Your task to perform on an android device: Clear the shopping cart on walmart. Search for "bose soundlink" on walmart, select the first entry, and add it to the cart. Image 0: 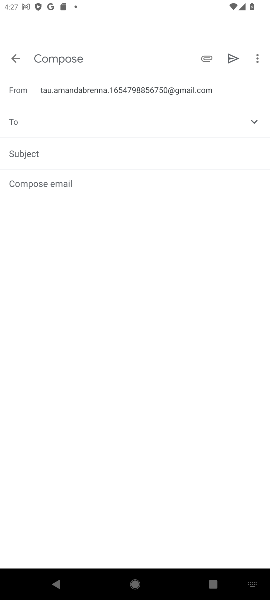
Step 0: press home button
Your task to perform on an android device: Clear the shopping cart on walmart. Search for "bose soundlink" on walmart, select the first entry, and add it to the cart. Image 1: 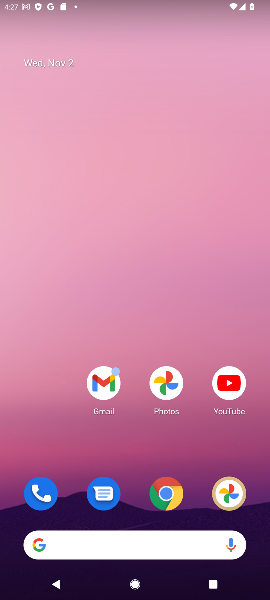
Step 1: drag from (126, 514) to (137, 179)
Your task to perform on an android device: Clear the shopping cart on walmart. Search for "bose soundlink" on walmart, select the first entry, and add it to the cart. Image 2: 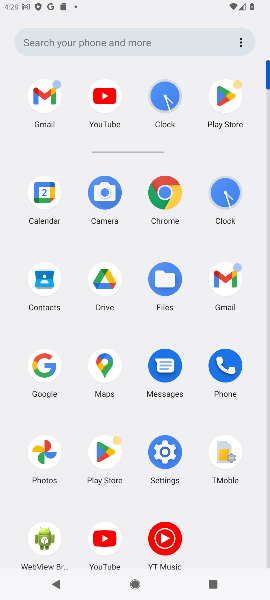
Step 2: click (38, 360)
Your task to perform on an android device: Clear the shopping cart on walmart. Search for "bose soundlink" on walmart, select the first entry, and add it to the cart. Image 3: 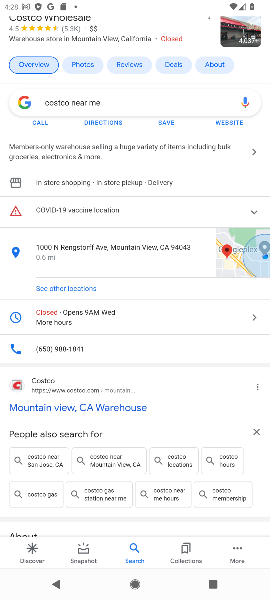
Step 3: click (110, 98)
Your task to perform on an android device: Clear the shopping cart on walmart. Search for "bose soundlink" on walmart, select the first entry, and add it to the cart. Image 4: 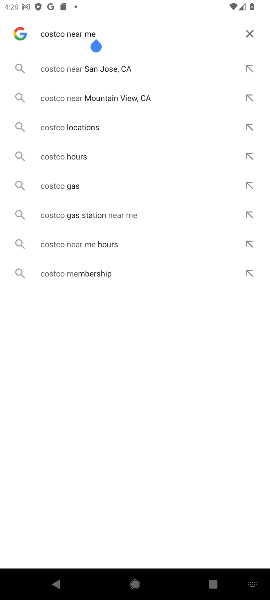
Step 4: click (247, 33)
Your task to perform on an android device: Clear the shopping cart on walmart. Search for "bose soundlink" on walmart, select the first entry, and add it to the cart. Image 5: 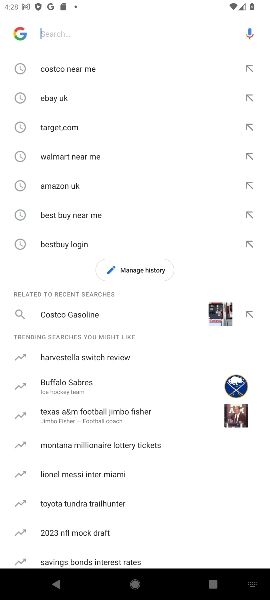
Step 5: click (82, 29)
Your task to perform on an android device: Clear the shopping cart on walmart. Search for "bose soundlink" on walmart, select the first entry, and add it to the cart. Image 6: 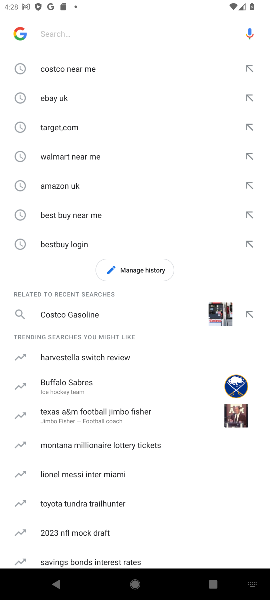
Step 6: type "walmart "
Your task to perform on an android device: Clear the shopping cart on walmart. Search for "bose soundlink" on walmart, select the first entry, and add it to the cart. Image 7: 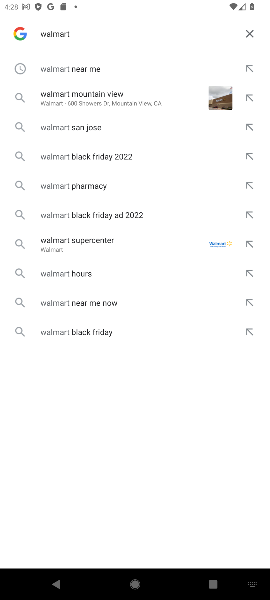
Step 7: click (78, 65)
Your task to perform on an android device: Clear the shopping cart on walmart. Search for "bose soundlink" on walmart, select the first entry, and add it to the cart. Image 8: 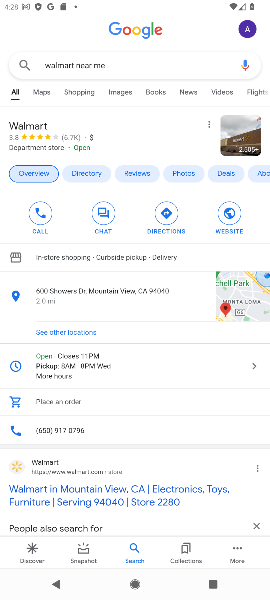
Step 8: click (131, 62)
Your task to perform on an android device: Clear the shopping cart on walmart. Search for "bose soundlink" on walmart, select the first entry, and add it to the cart. Image 9: 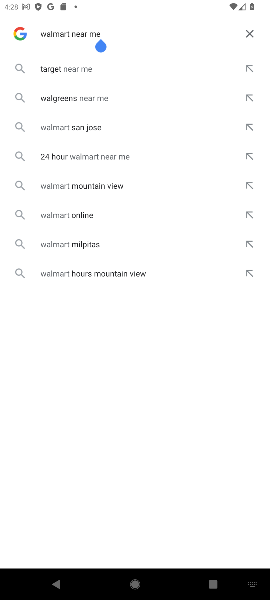
Step 9: click (250, 35)
Your task to perform on an android device: Clear the shopping cart on walmart. Search for "bose soundlink" on walmart, select the first entry, and add it to the cart. Image 10: 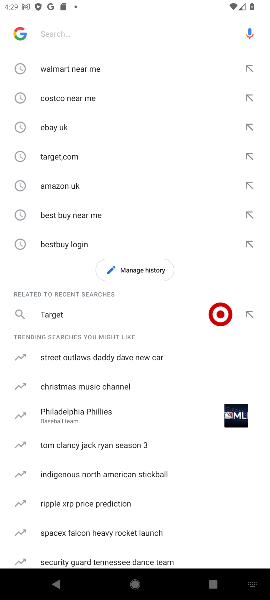
Step 10: click (65, 73)
Your task to perform on an android device: Clear the shopping cart on walmart. Search for "bose soundlink" on walmart, select the first entry, and add it to the cart. Image 11: 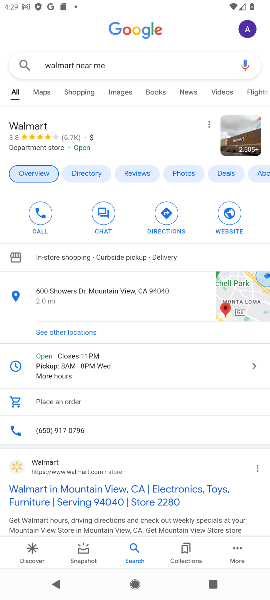
Step 11: drag from (95, 387) to (112, 189)
Your task to perform on an android device: Clear the shopping cart on walmart. Search for "bose soundlink" on walmart, select the first entry, and add it to the cart. Image 12: 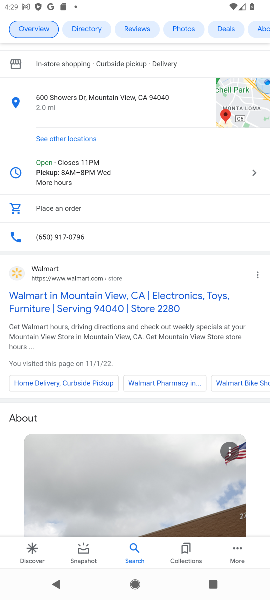
Step 12: click (17, 272)
Your task to perform on an android device: Clear the shopping cart on walmart. Search for "bose soundlink" on walmart, select the first entry, and add it to the cart. Image 13: 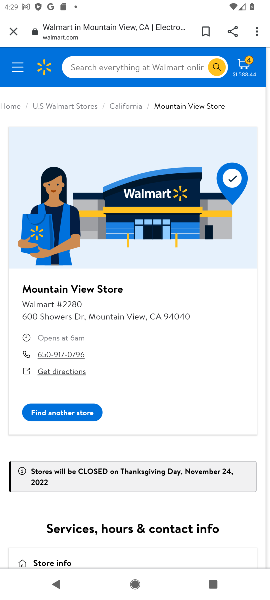
Step 13: click (117, 65)
Your task to perform on an android device: Clear the shopping cart on walmart. Search for "bose soundlink" on walmart, select the first entry, and add it to the cart. Image 14: 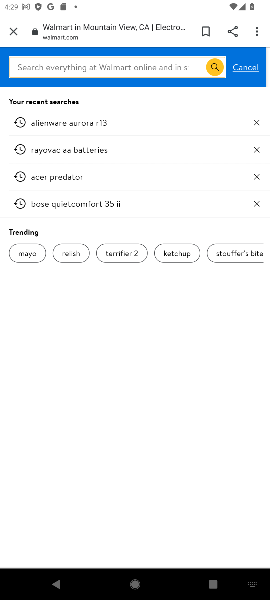
Step 14: click (75, 59)
Your task to perform on an android device: Clear the shopping cart on walmart. Search for "bose soundlink" on walmart, select the first entry, and add it to the cart. Image 15: 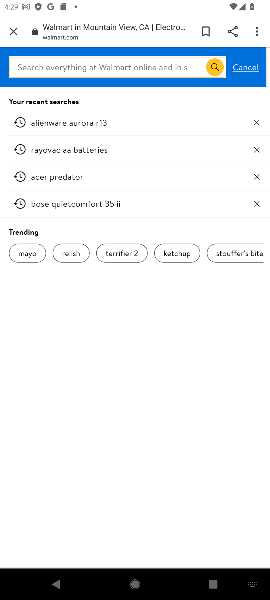
Step 15: type "bose soundlink "
Your task to perform on an android device: Clear the shopping cart on walmart. Search for "bose soundlink" on walmart, select the first entry, and add it to the cart. Image 16: 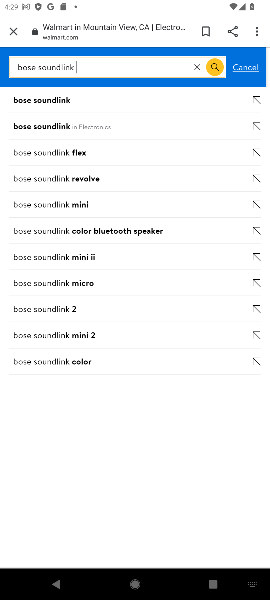
Step 16: click (54, 99)
Your task to perform on an android device: Clear the shopping cart on walmart. Search for "bose soundlink" on walmart, select the first entry, and add it to the cart. Image 17: 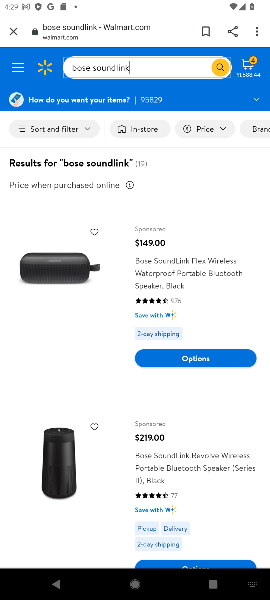
Step 17: click (187, 362)
Your task to perform on an android device: Clear the shopping cart on walmart. Search for "bose soundlink" on walmart, select the first entry, and add it to the cart. Image 18: 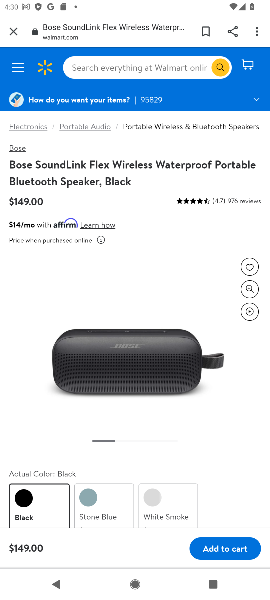
Step 18: click (238, 544)
Your task to perform on an android device: Clear the shopping cart on walmart. Search for "bose soundlink" on walmart, select the first entry, and add it to the cart. Image 19: 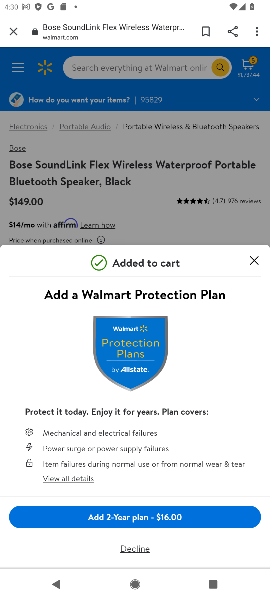
Step 19: task complete